Your task to perform on an android device: Open Amazon Image 0: 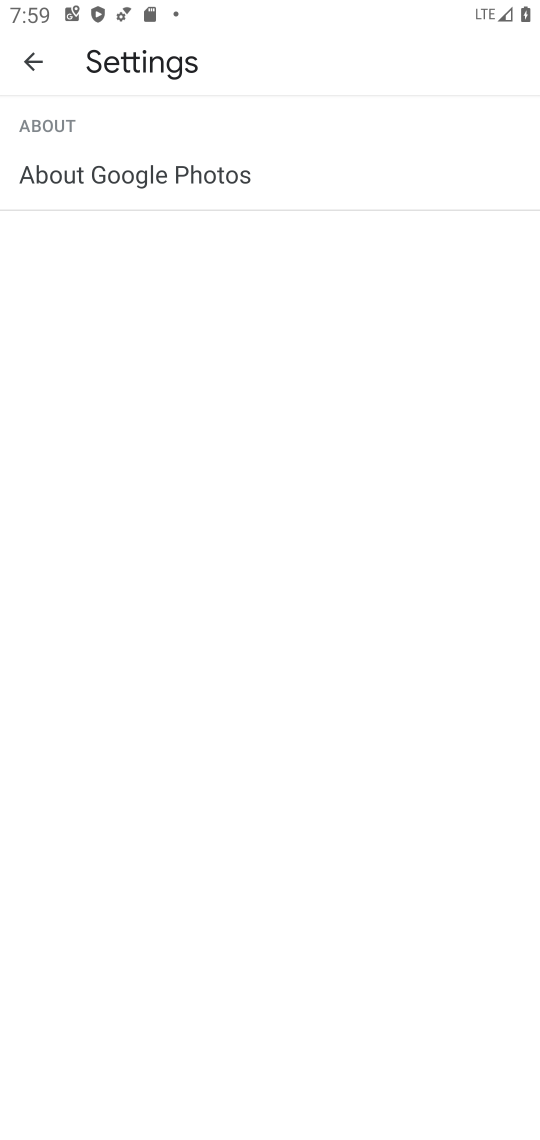
Step 0: press home button
Your task to perform on an android device: Open Amazon Image 1: 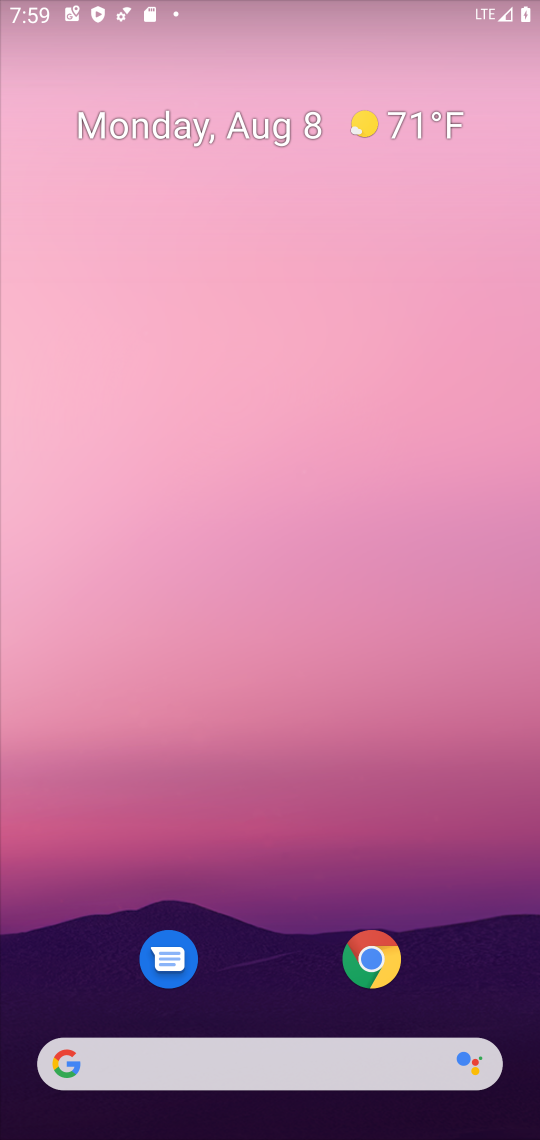
Step 1: drag from (521, 980) to (347, 250)
Your task to perform on an android device: Open Amazon Image 2: 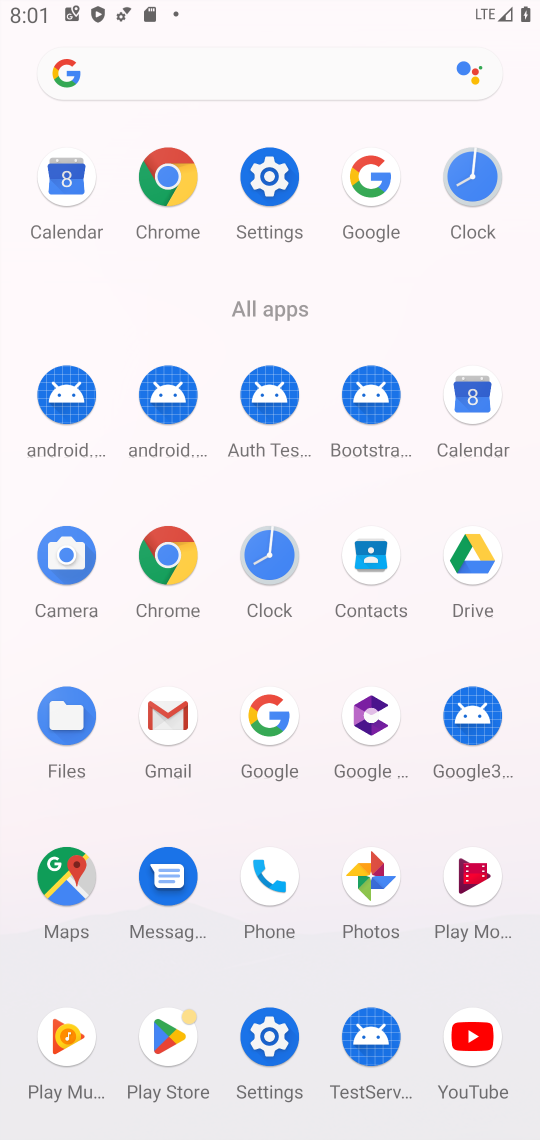
Step 2: click (261, 732)
Your task to perform on an android device: Open Amazon Image 3: 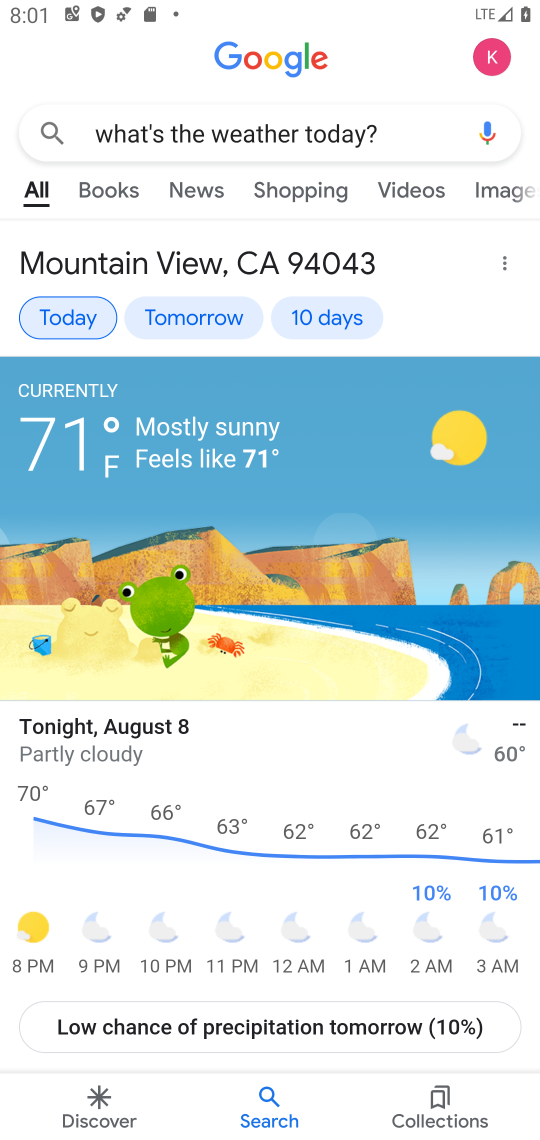
Step 3: press back button
Your task to perform on an android device: Open Amazon Image 4: 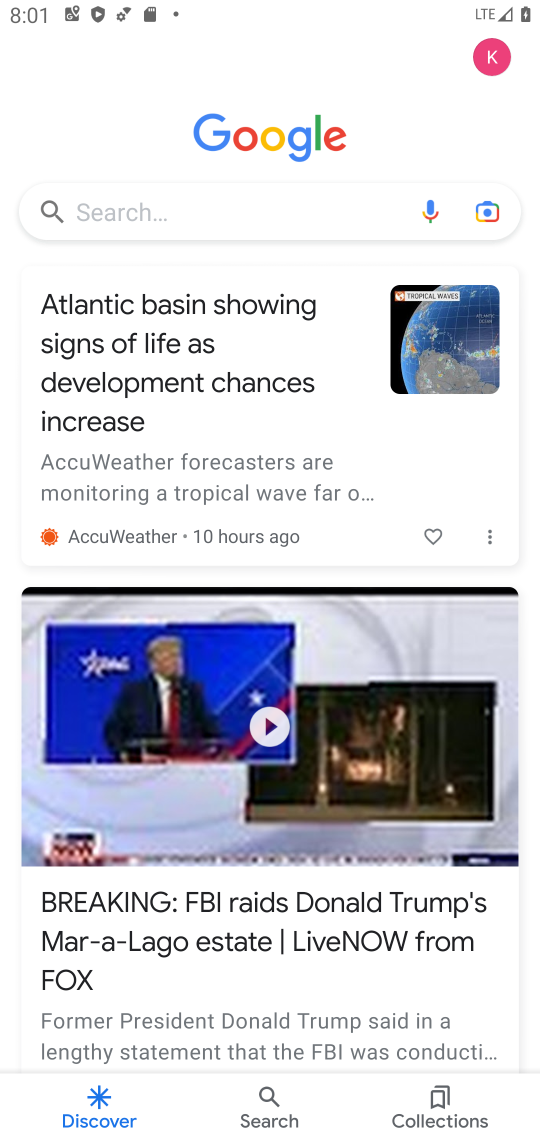
Step 4: click (96, 210)
Your task to perform on an android device: Open Amazon Image 5: 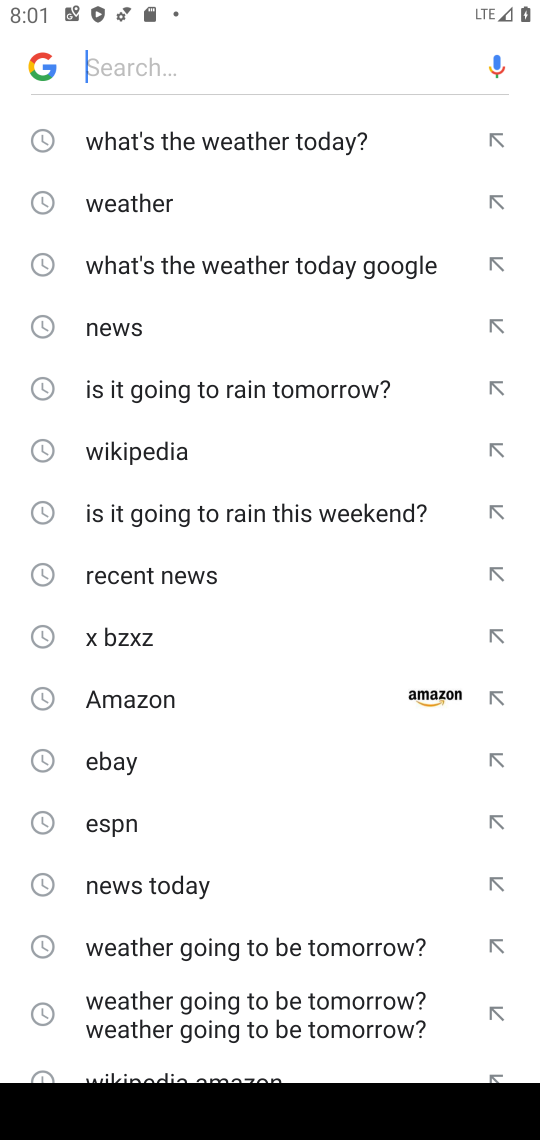
Step 5: click (119, 702)
Your task to perform on an android device: Open Amazon Image 6: 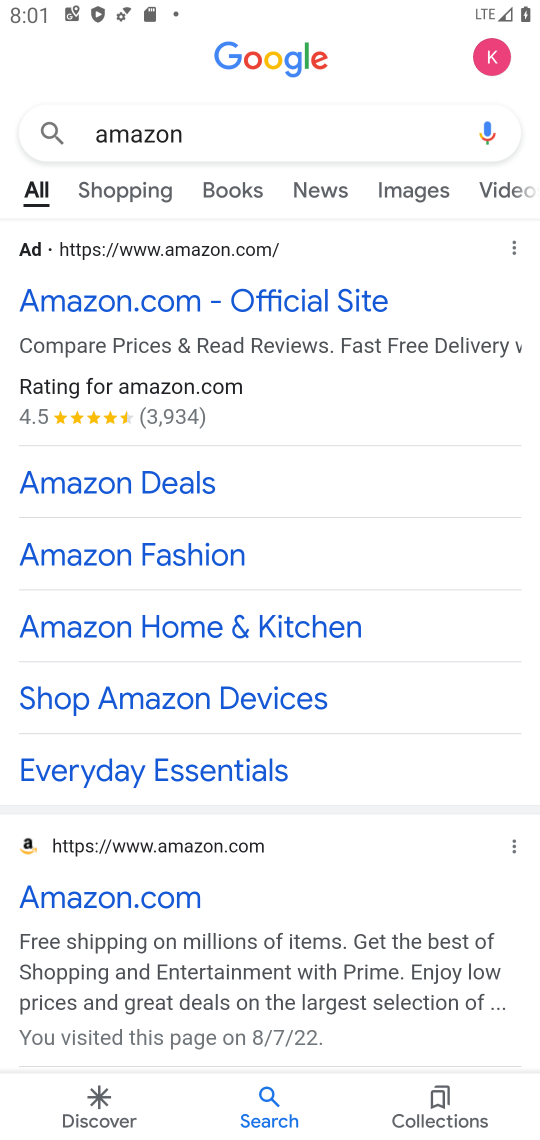
Step 6: task complete